Your task to perform on an android device: Open calendar and show me the first week of next month Image 0: 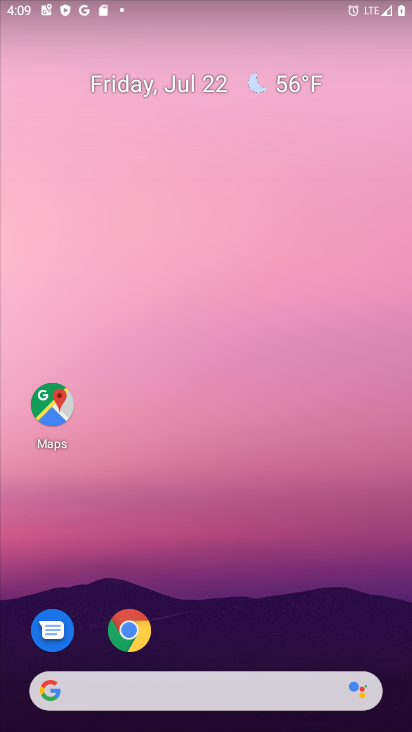
Step 0: drag from (208, 669) to (203, 278)
Your task to perform on an android device: Open calendar and show me the first week of next month Image 1: 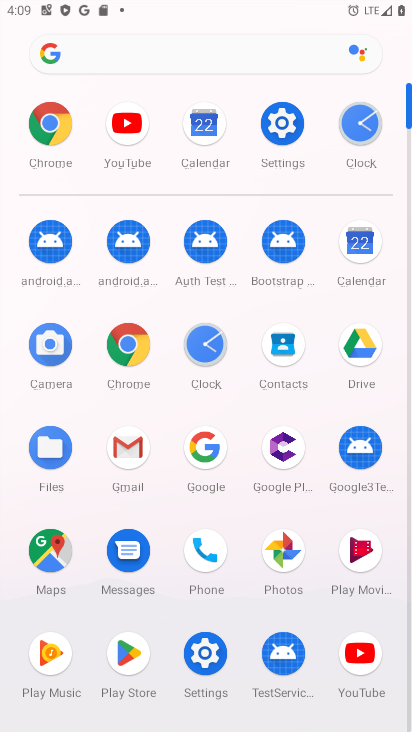
Step 1: click (359, 260)
Your task to perform on an android device: Open calendar and show me the first week of next month Image 2: 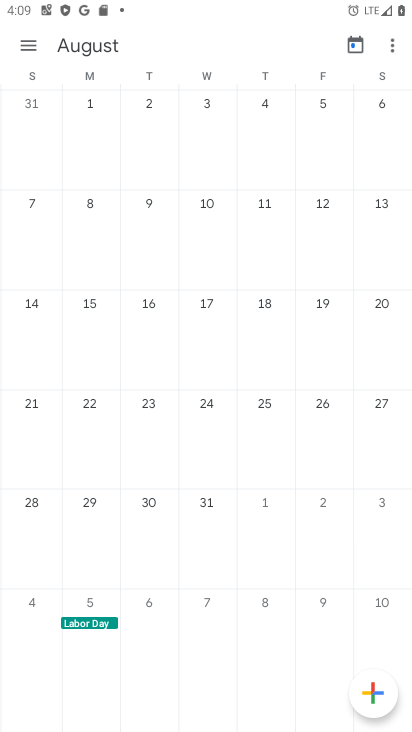
Step 2: task complete